Your task to perform on an android device: Go to battery settings Image 0: 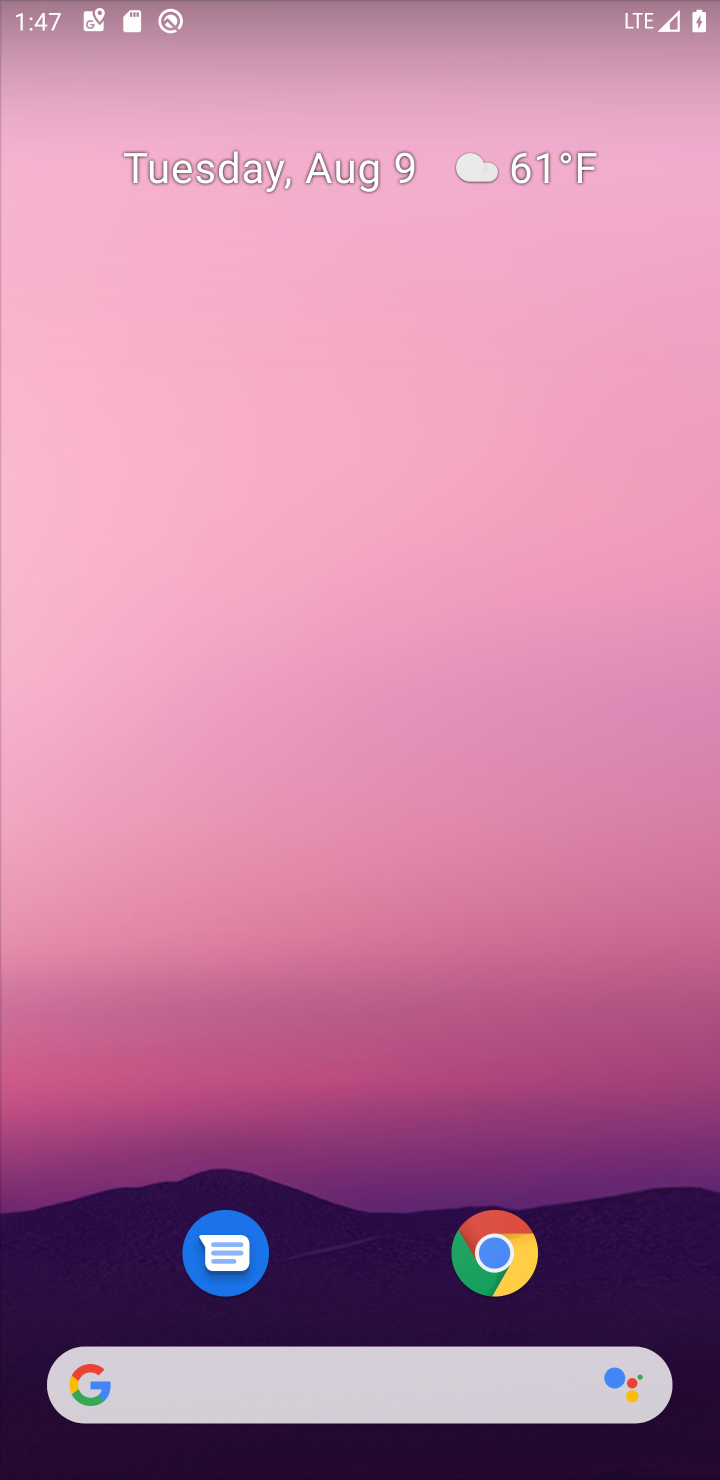
Step 0: drag from (666, 1282) to (387, 74)
Your task to perform on an android device: Go to battery settings Image 1: 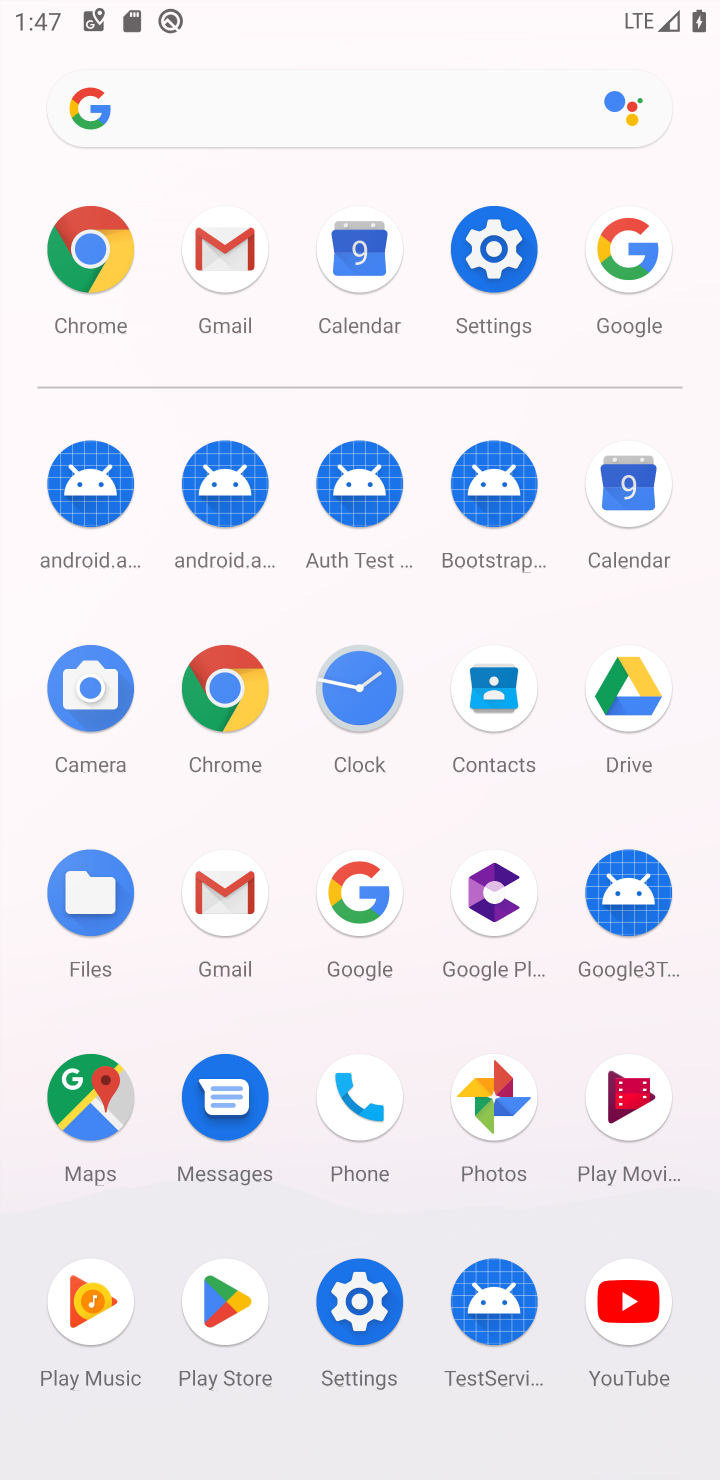
Step 1: click (342, 1327)
Your task to perform on an android device: Go to battery settings Image 2: 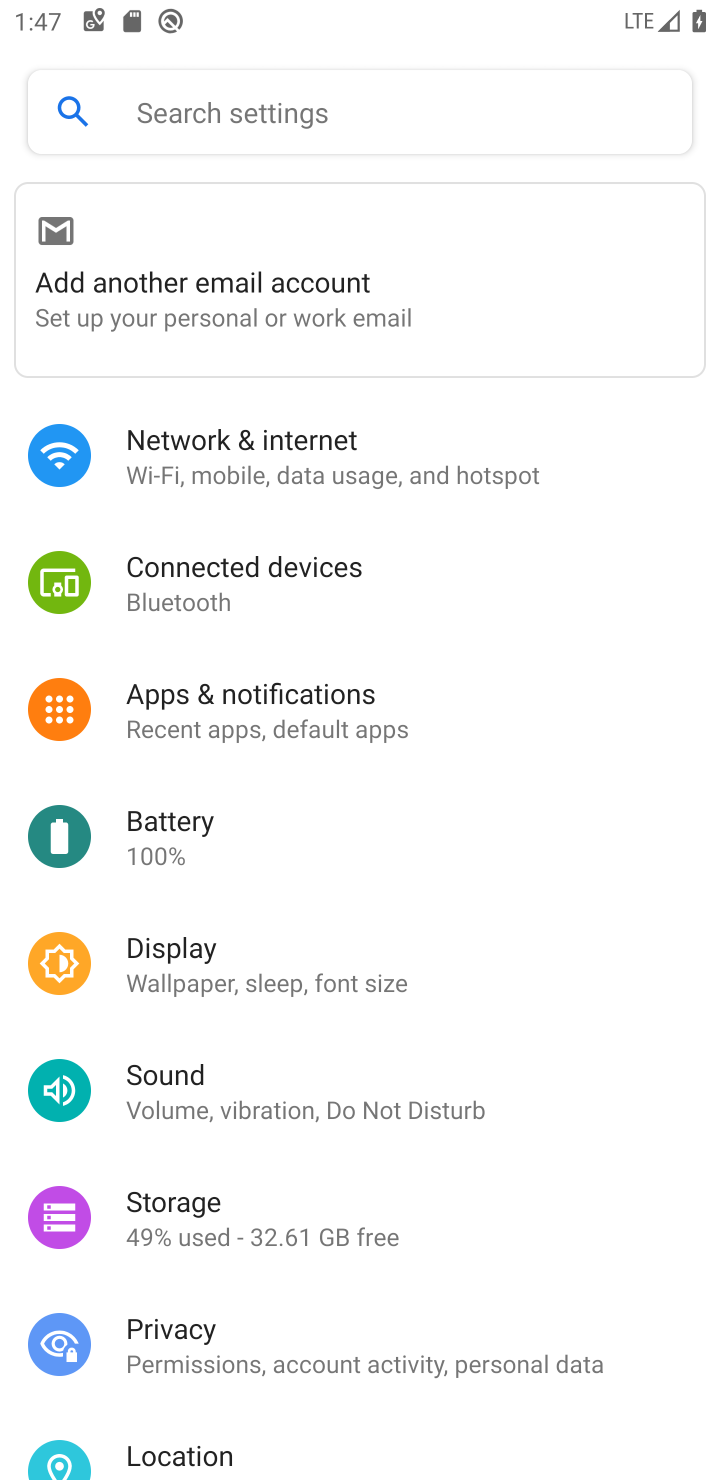
Step 2: click (147, 805)
Your task to perform on an android device: Go to battery settings Image 3: 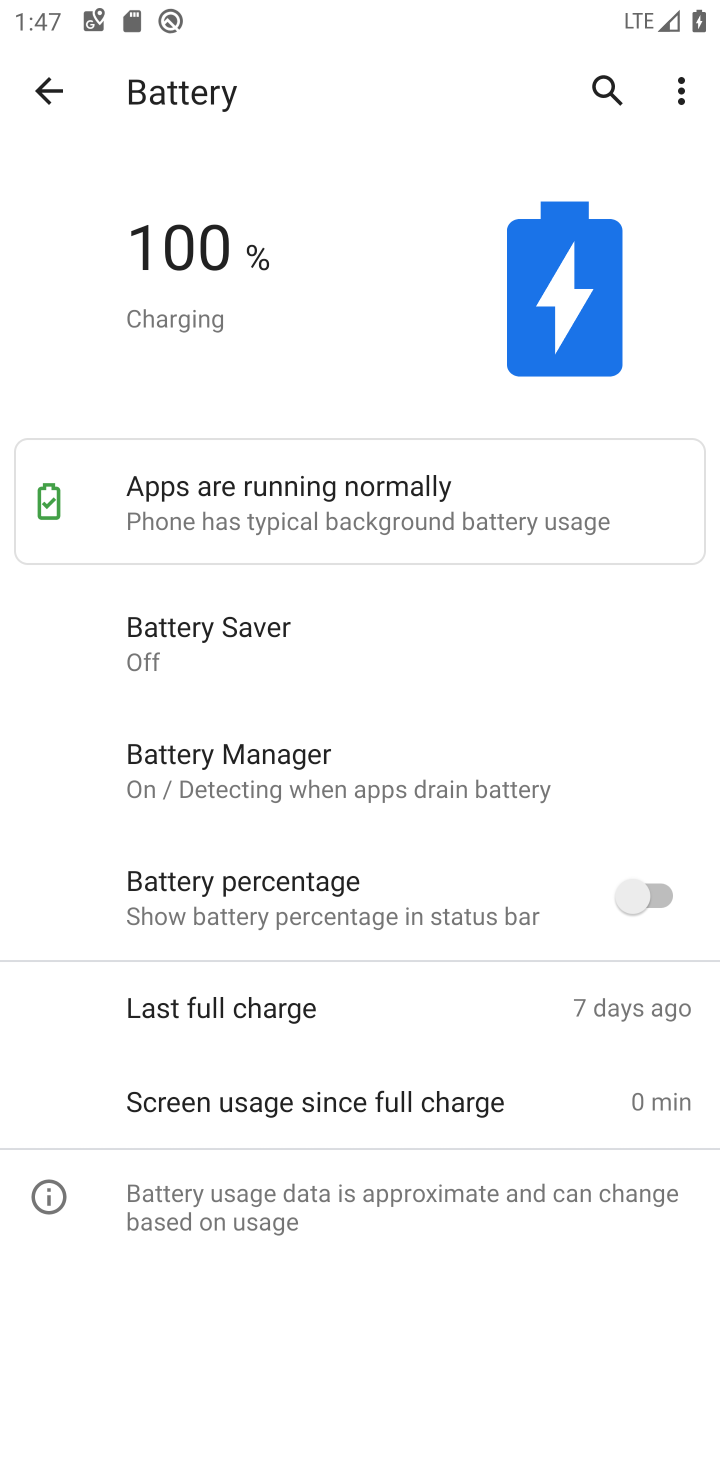
Step 3: task complete